Your task to perform on an android device: clear all cookies in the chrome app Image 0: 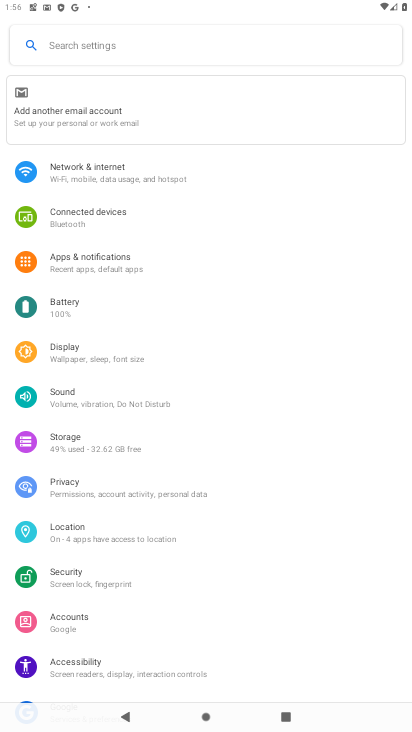
Step 0: press home button
Your task to perform on an android device: clear all cookies in the chrome app Image 1: 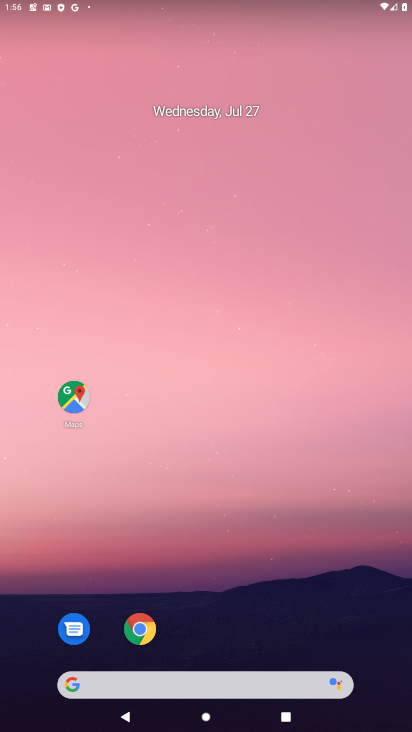
Step 1: click (154, 633)
Your task to perform on an android device: clear all cookies in the chrome app Image 2: 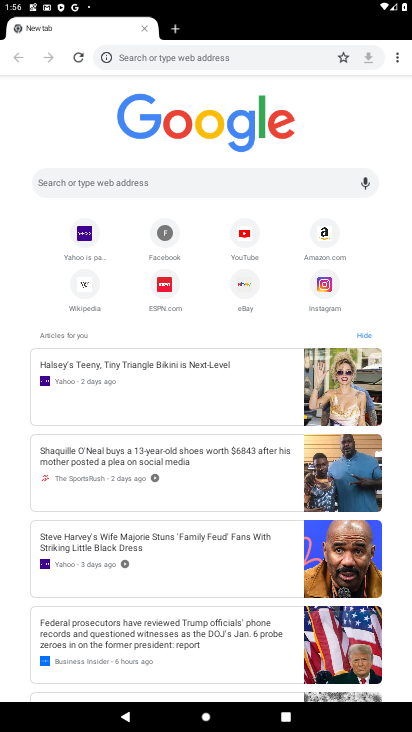
Step 2: click (404, 59)
Your task to perform on an android device: clear all cookies in the chrome app Image 3: 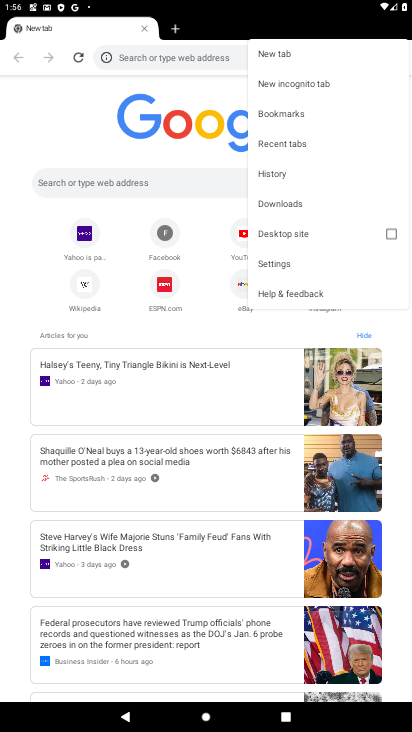
Step 3: click (299, 267)
Your task to perform on an android device: clear all cookies in the chrome app Image 4: 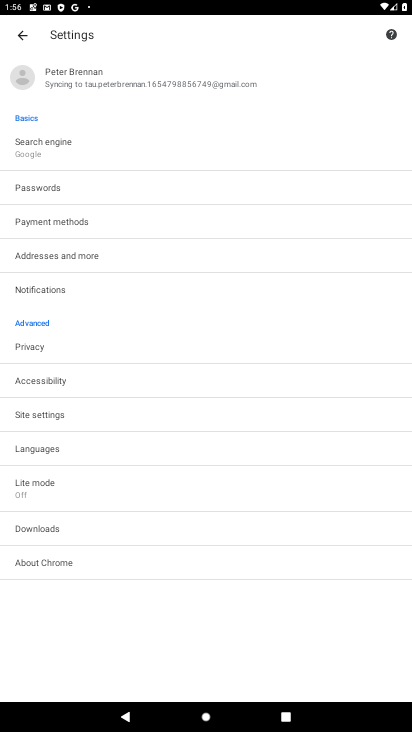
Step 4: task complete